Your task to perform on an android device: set an alarm Image 0: 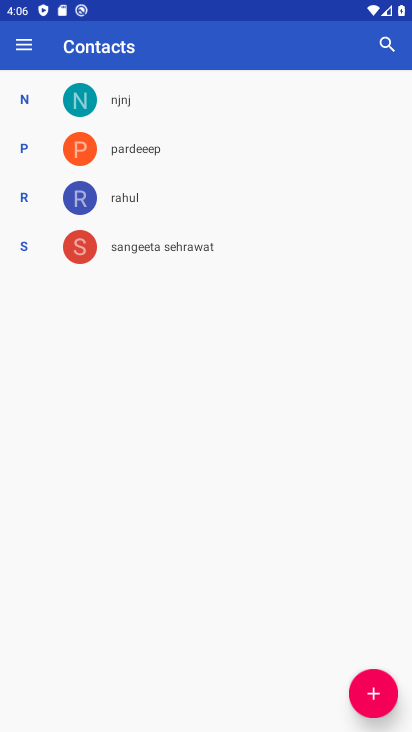
Step 0: press back button
Your task to perform on an android device: set an alarm Image 1: 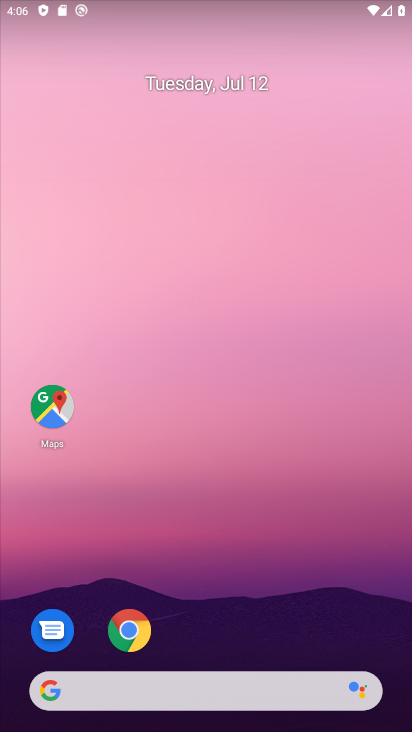
Step 1: drag from (275, 676) to (237, 276)
Your task to perform on an android device: set an alarm Image 2: 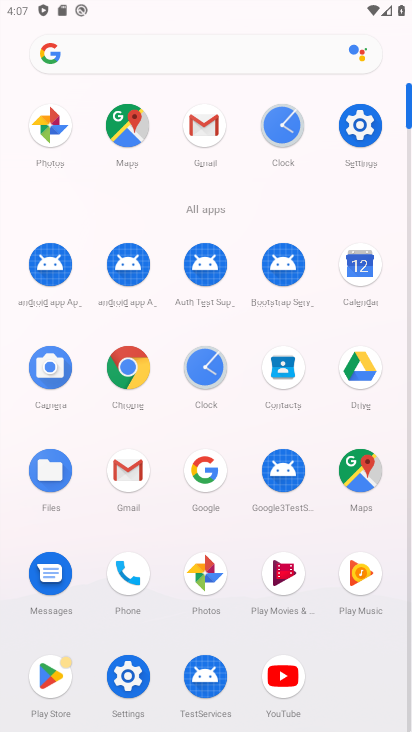
Step 2: click (218, 340)
Your task to perform on an android device: set an alarm Image 3: 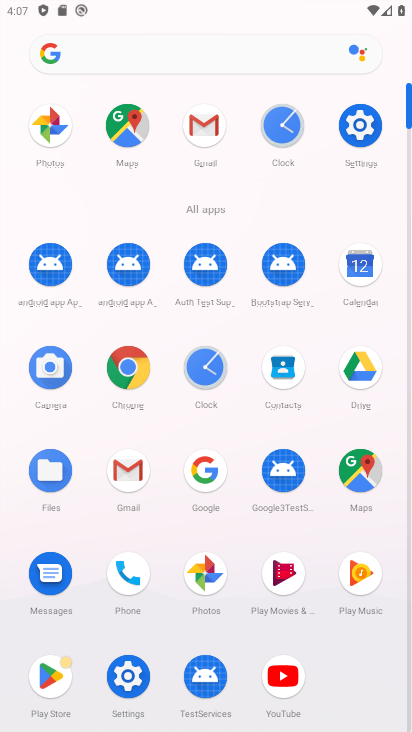
Step 3: click (191, 363)
Your task to perform on an android device: set an alarm Image 4: 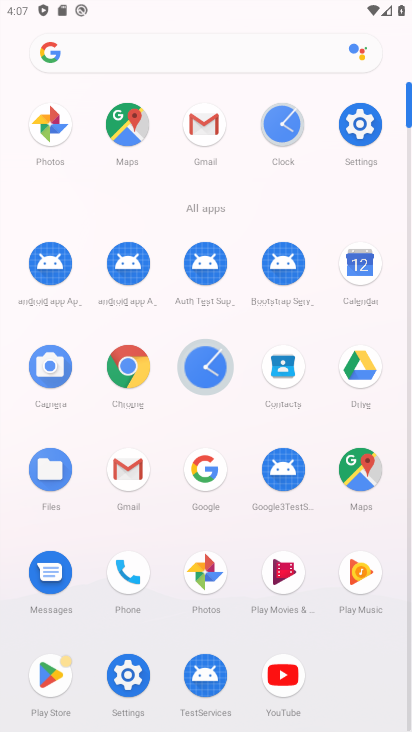
Step 4: click (204, 362)
Your task to perform on an android device: set an alarm Image 5: 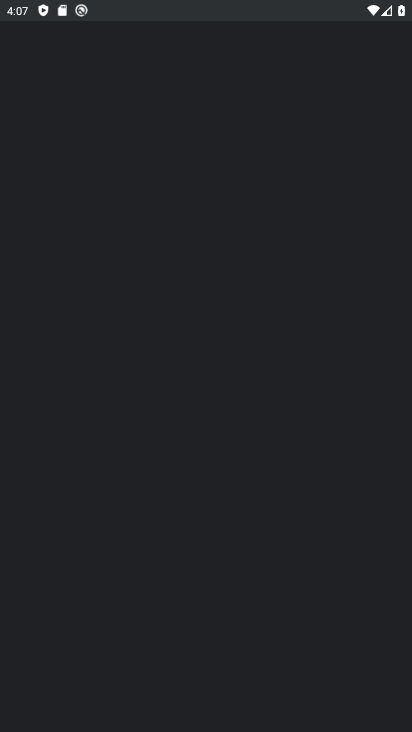
Step 5: click (204, 362)
Your task to perform on an android device: set an alarm Image 6: 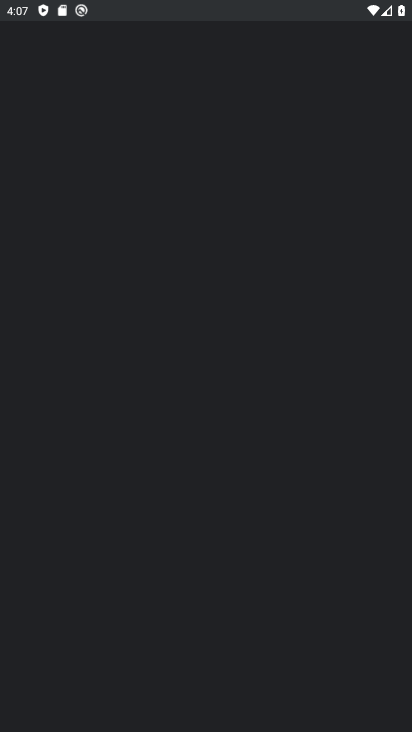
Step 6: click (205, 363)
Your task to perform on an android device: set an alarm Image 7: 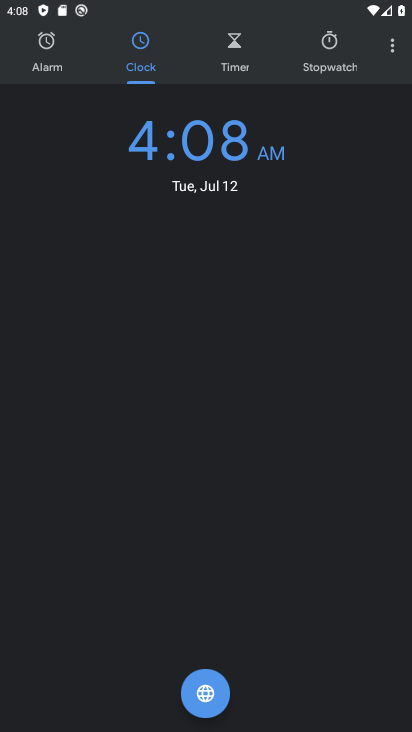
Step 7: click (47, 57)
Your task to perform on an android device: set an alarm Image 8: 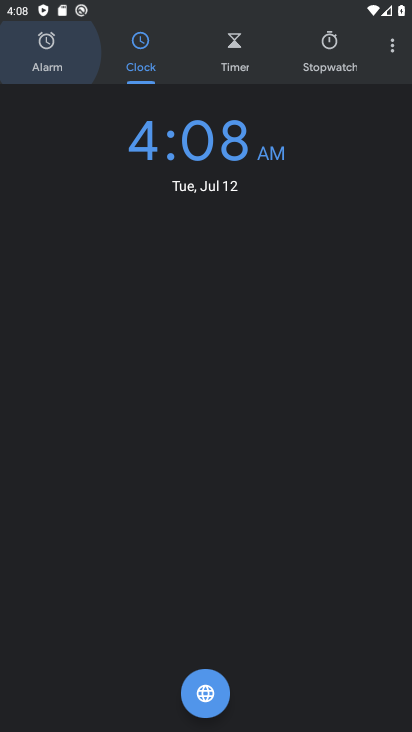
Step 8: click (48, 58)
Your task to perform on an android device: set an alarm Image 9: 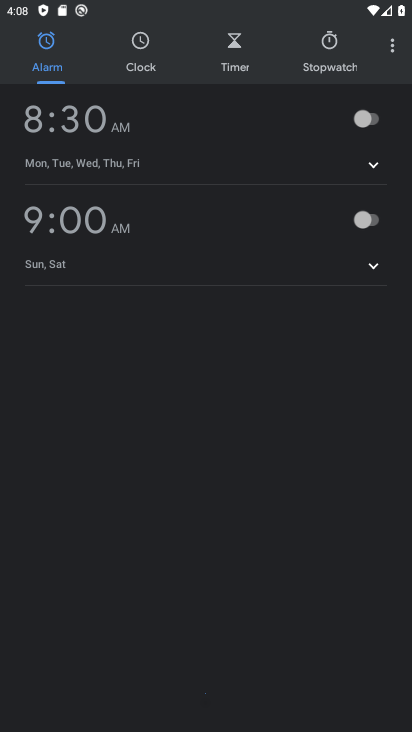
Step 9: click (48, 58)
Your task to perform on an android device: set an alarm Image 10: 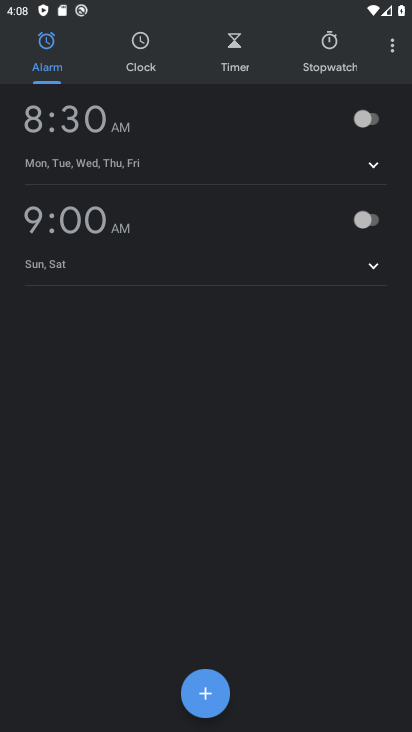
Step 10: click (360, 114)
Your task to perform on an android device: set an alarm Image 11: 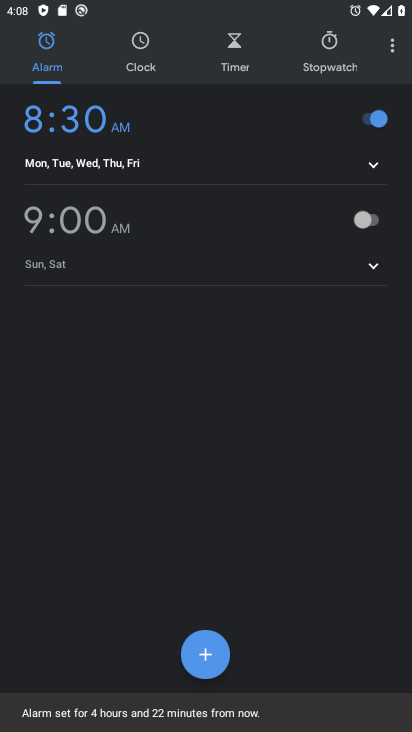
Step 11: task complete